Your task to perform on an android device: Open Google Maps Image 0: 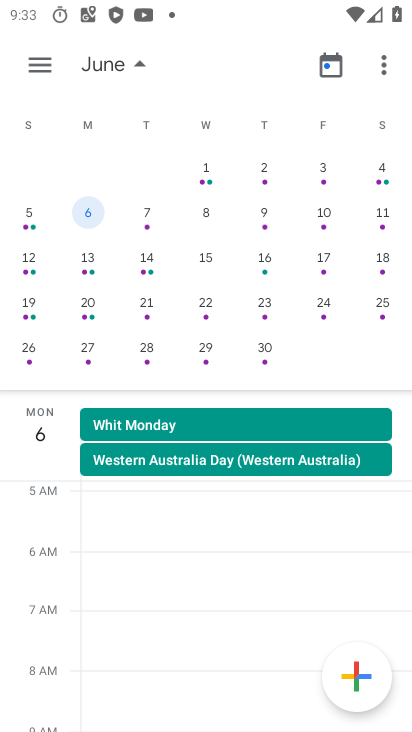
Step 0: press home button
Your task to perform on an android device: Open Google Maps Image 1: 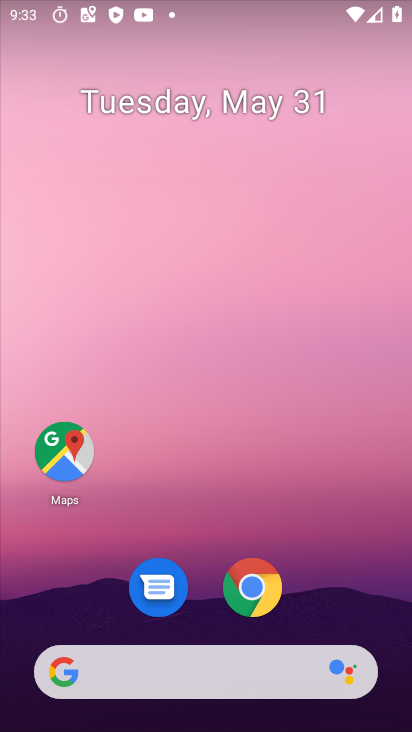
Step 1: click (54, 439)
Your task to perform on an android device: Open Google Maps Image 2: 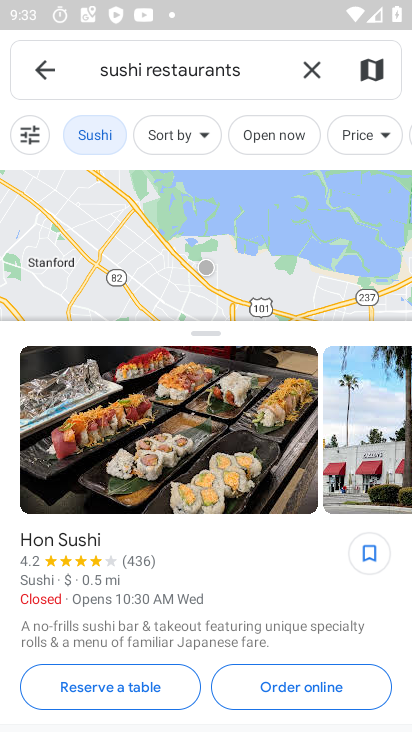
Step 2: click (54, 64)
Your task to perform on an android device: Open Google Maps Image 3: 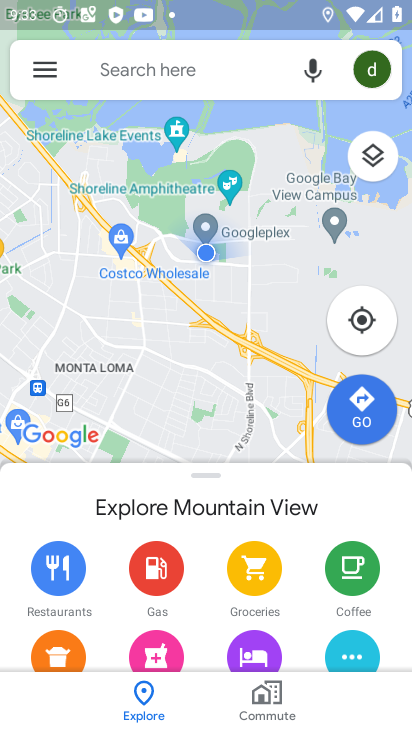
Step 3: task complete